Your task to perform on an android device: open the mobile data screen to see how much data has been used Image 0: 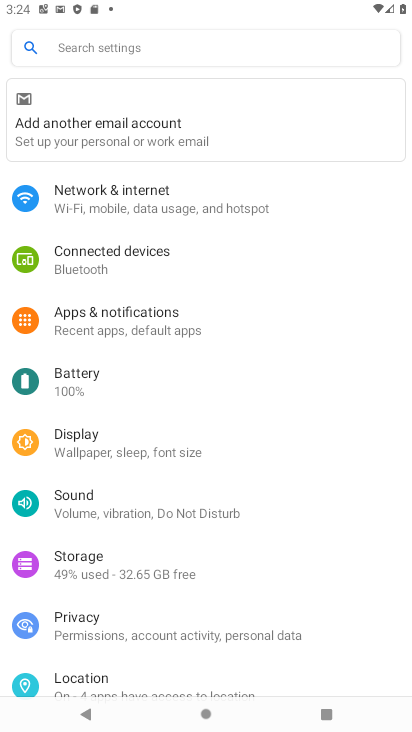
Step 0: press home button
Your task to perform on an android device: open the mobile data screen to see how much data has been used Image 1: 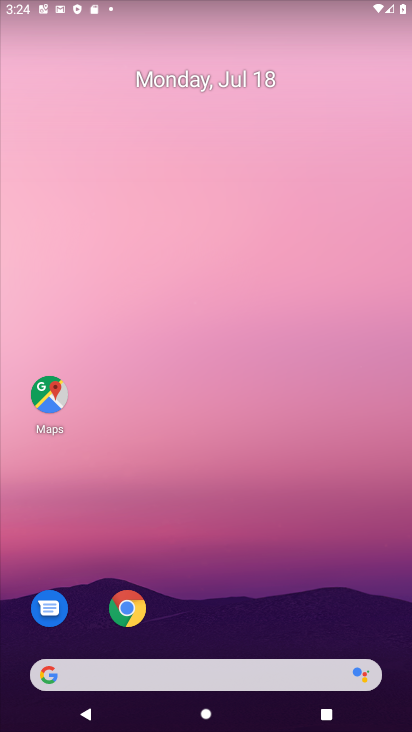
Step 1: drag from (239, 663) to (265, 162)
Your task to perform on an android device: open the mobile data screen to see how much data has been used Image 2: 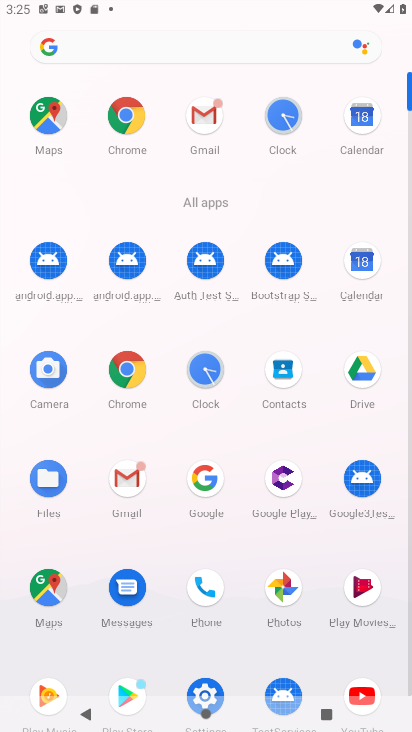
Step 2: click (189, 293)
Your task to perform on an android device: open the mobile data screen to see how much data has been used Image 3: 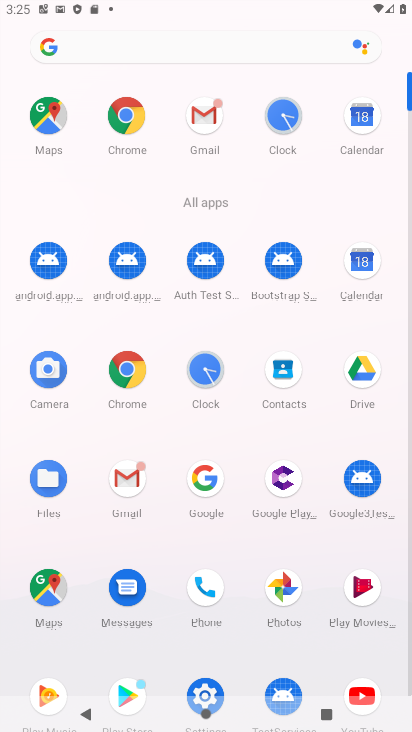
Step 3: drag from (229, 499) to (271, 277)
Your task to perform on an android device: open the mobile data screen to see how much data has been used Image 4: 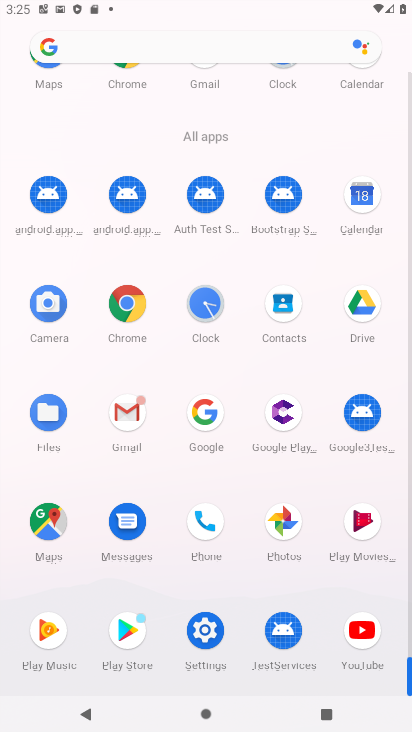
Step 4: click (196, 644)
Your task to perform on an android device: open the mobile data screen to see how much data has been used Image 5: 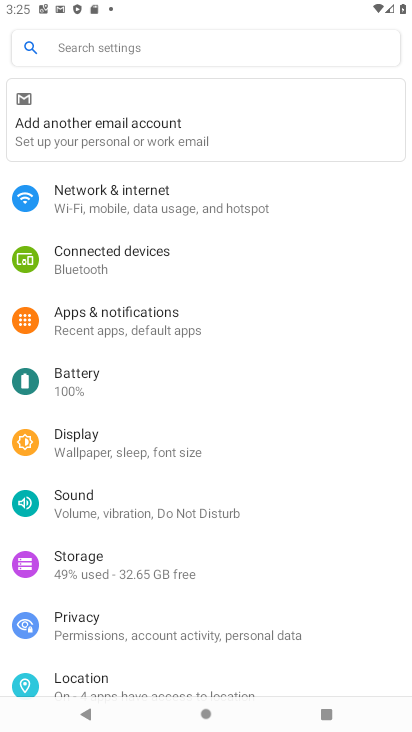
Step 5: click (120, 199)
Your task to perform on an android device: open the mobile data screen to see how much data has been used Image 6: 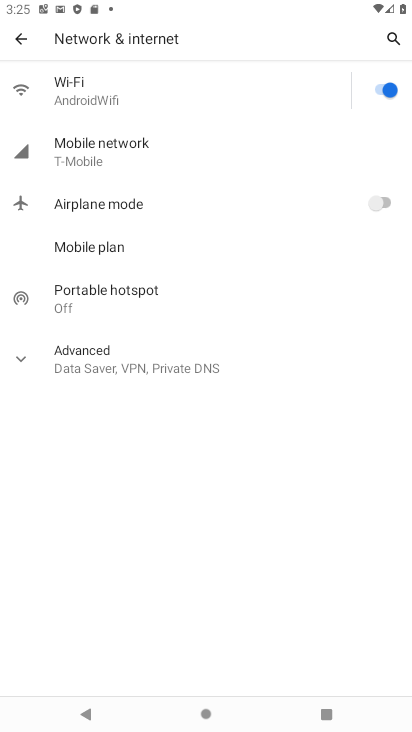
Step 6: click (143, 159)
Your task to perform on an android device: open the mobile data screen to see how much data has been used Image 7: 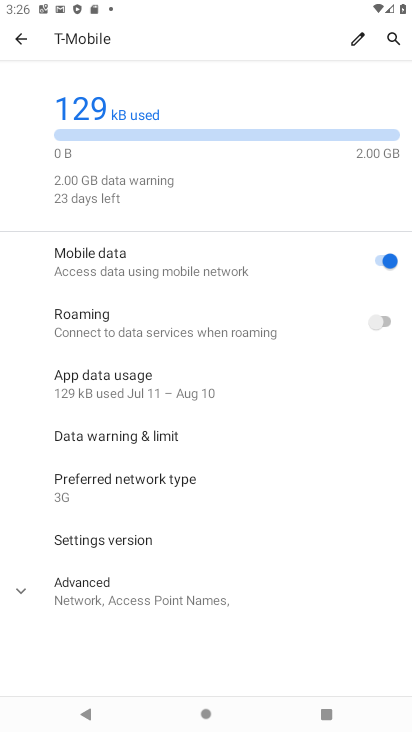
Step 7: click (156, 385)
Your task to perform on an android device: open the mobile data screen to see how much data has been used Image 8: 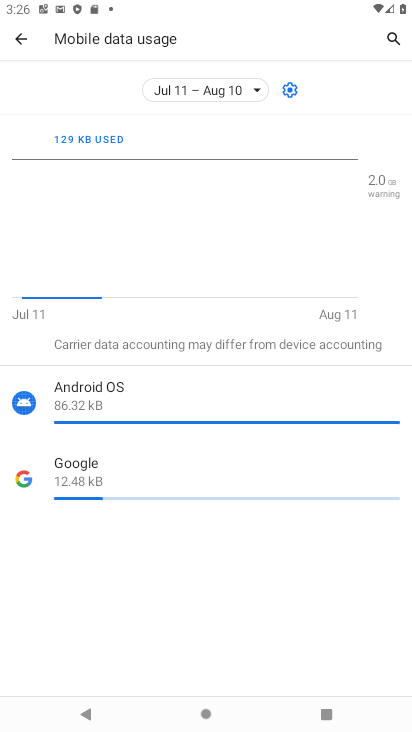
Step 8: task complete